Your task to perform on an android device: turn off priority inbox in the gmail app Image 0: 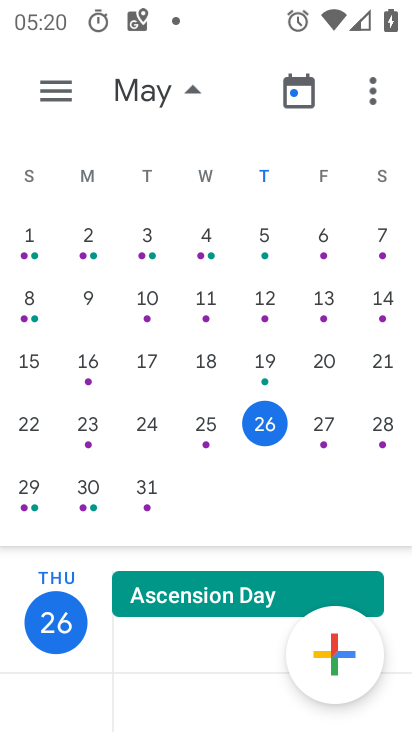
Step 0: press home button
Your task to perform on an android device: turn off priority inbox in the gmail app Image 1: 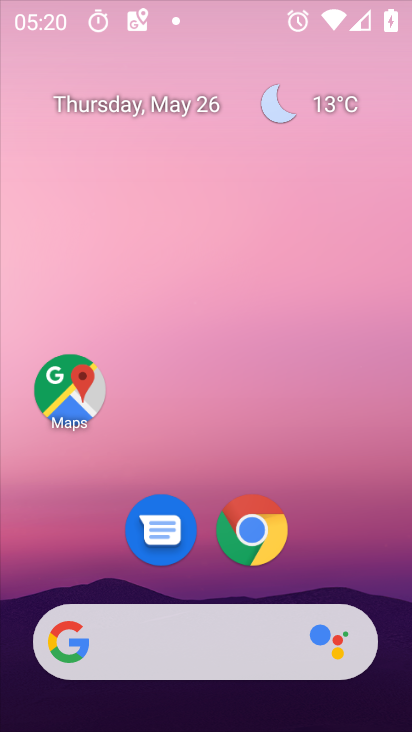
Step 1: drag from (261, 658) to (271, 2)
Your task to perform on an android device: turn off priority inbox in the gmail app Image 2: 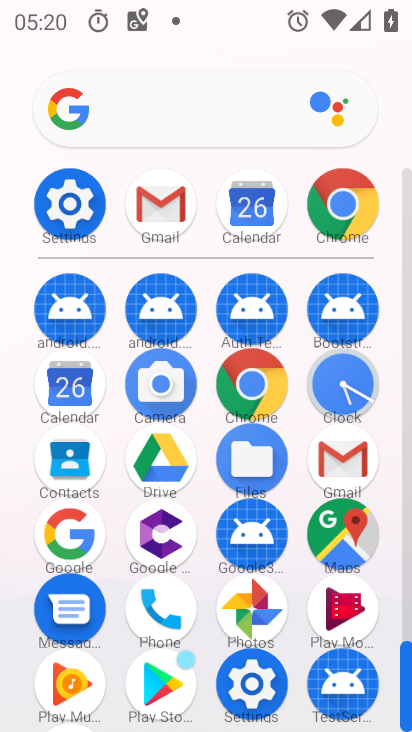
Step 2: click (352, 459)
Your task to perform on an android device: turn off priority inbox in the gmail app Image 3: 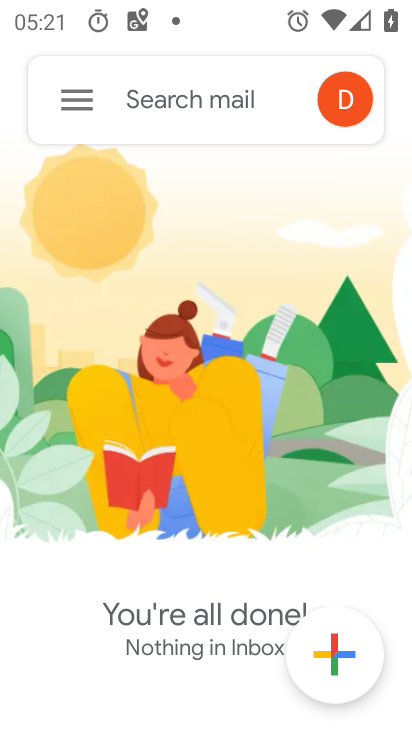
Step 3: click (70, 81)
Your task to perform on an android device: turn off priority inbox in the gmail app Image 4: 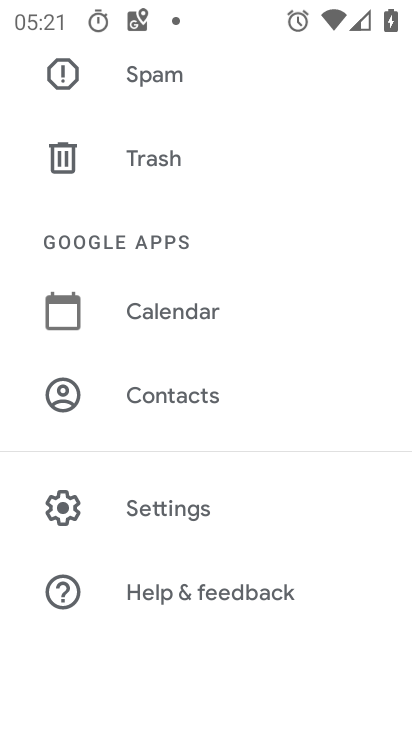
Step 4: click (185, 503)
Your task to perform on an android device: turn off priority inbox in the gmail app Image 5: 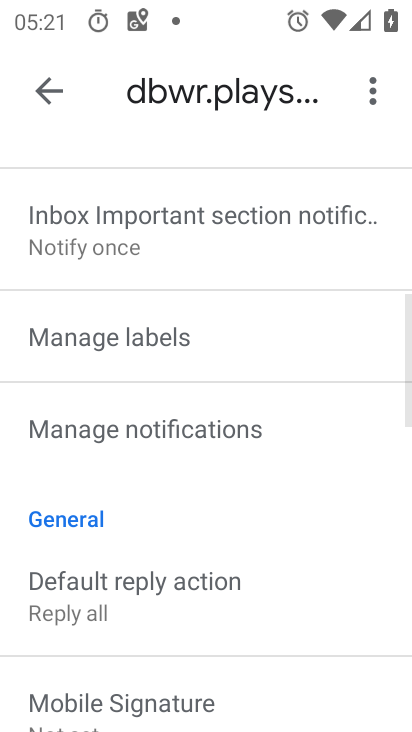
Step 5: drag from (164, 175) to (128, 724)
Your task to perform on an android device: turn off priority inbox in the gmail app Image 6: 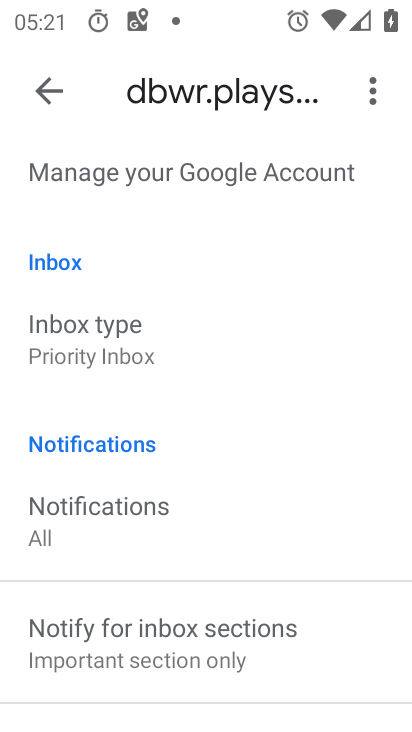
Step 6: click (119, 324)
Your task to perform on an android device: turn off priority inbox in the gmail app Image 7: 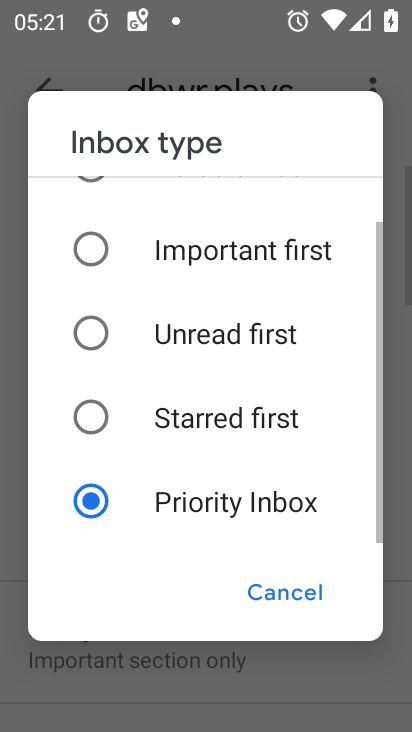
Step 7: click (127, 241)
Your task to perform on an android device: turn off priority inbox in the gmail app Image 8: 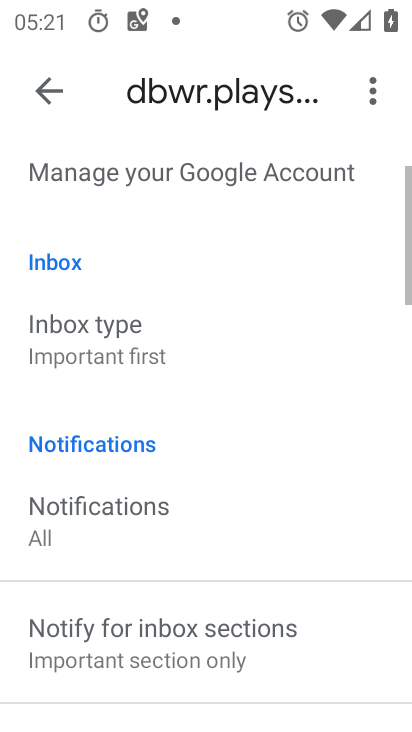
Step 8: task complete